Your task to perform on an android device: turn off improve location accuracy Image 0: 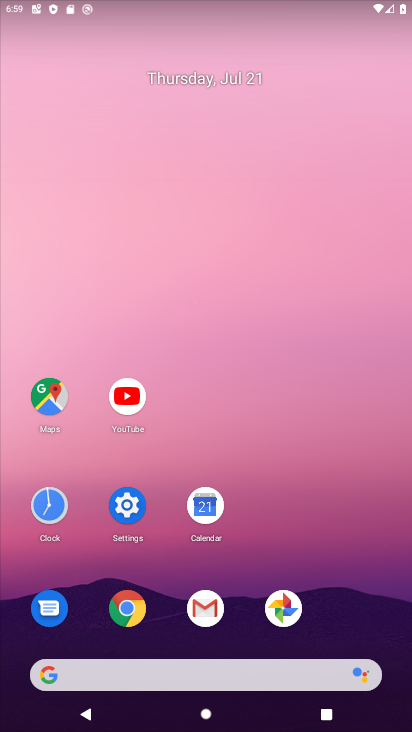
Step 0: click (128, 504)
Your task to perform on an android device: turn off improve location accuracy Image 1: 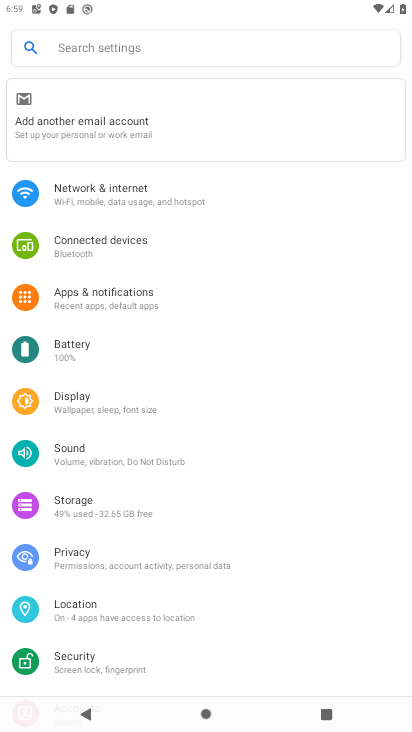
Step 1: click (70, 607)
Your task to perform on an android device: turn off improve location accuracy Image 2: 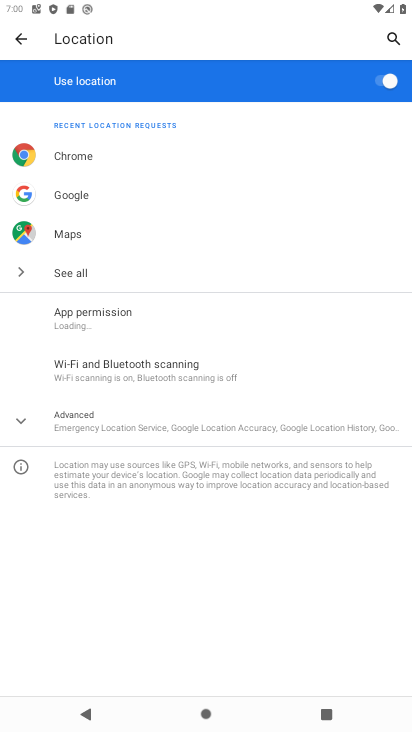
Step 2: click (26, 415)
Your task to perform on an android device: turn off improve location accuracy Image 3: 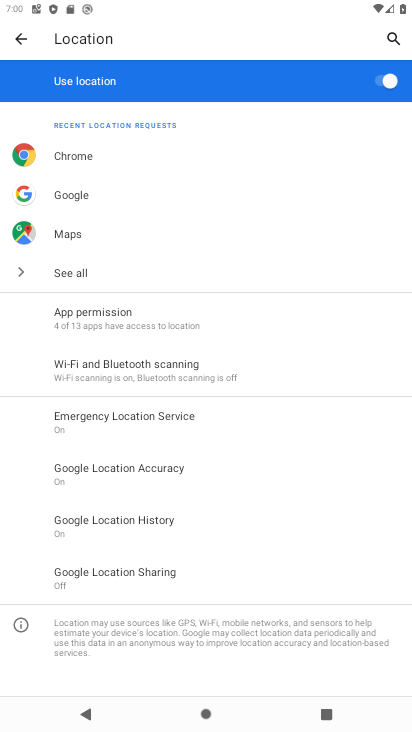
Step 3: click (129, 467)
Your task to perform on an android device: turn off improve location accuracy Image 4: 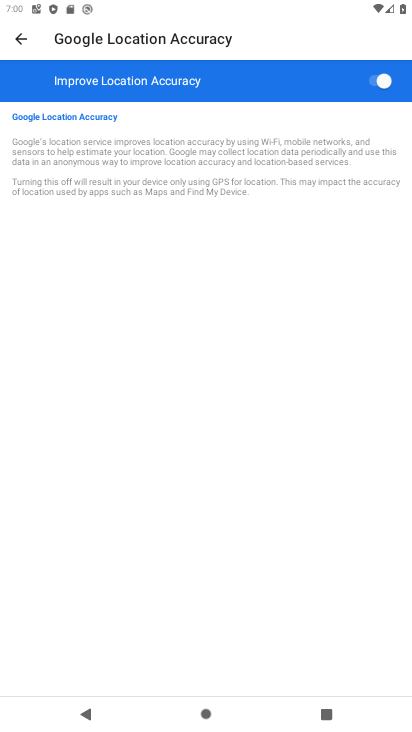
Step 4: click (383, 86)
Your task to perform on an android device: turn off improve location accuracy Image 5: 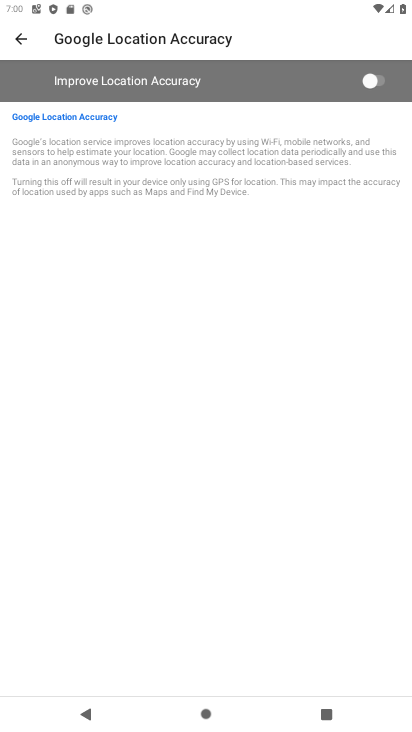
Step 5: task complete